Your task to perform on an android device: Search for bose soundlink mini on newegg.com, select the first entry, add it to the cart, then select checkout. Image 0: 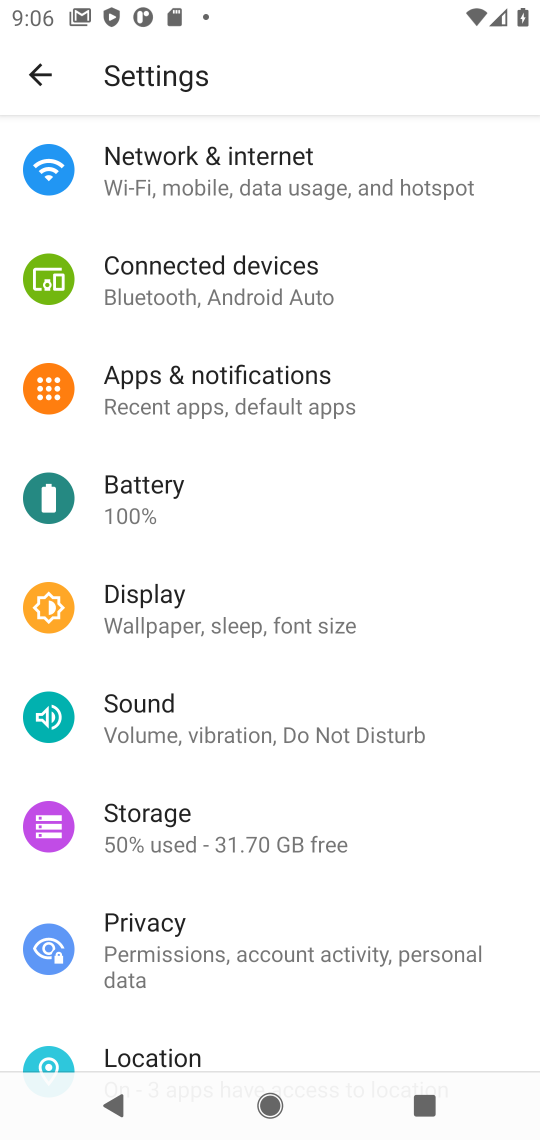
Step 0: press home button
Your task to perform on an android device: Search for bose soundlink mini on newegg.com, select the first entry, add it to the cart, then select checkout. Image 1: 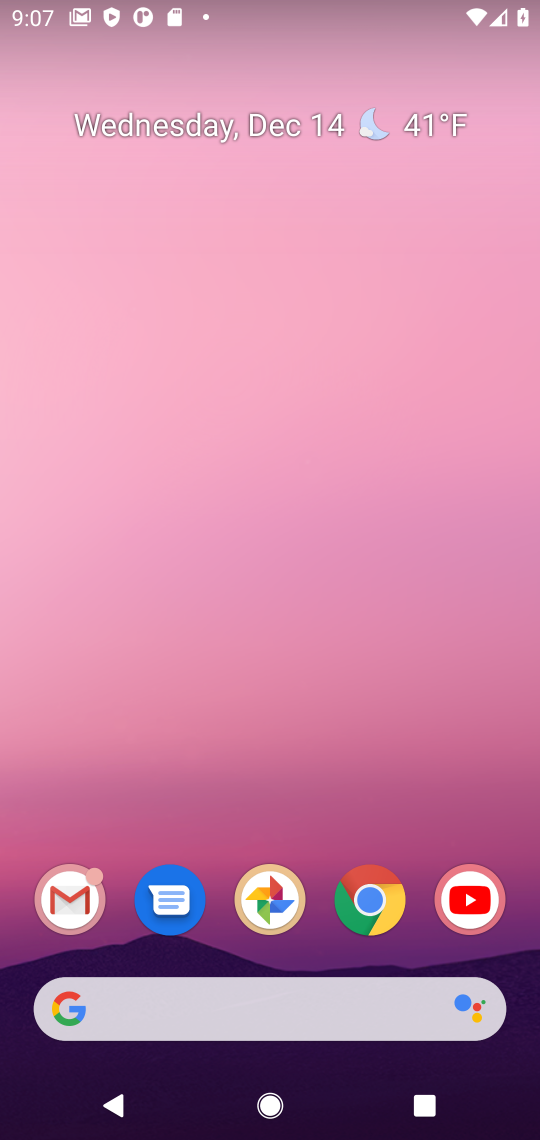
Step 1: click (364, 917)
Your task to perform on an android device: Search for bose soundlink mini on newegg.com, select the first entry, add it to the cart, then select checkout. Image 2: 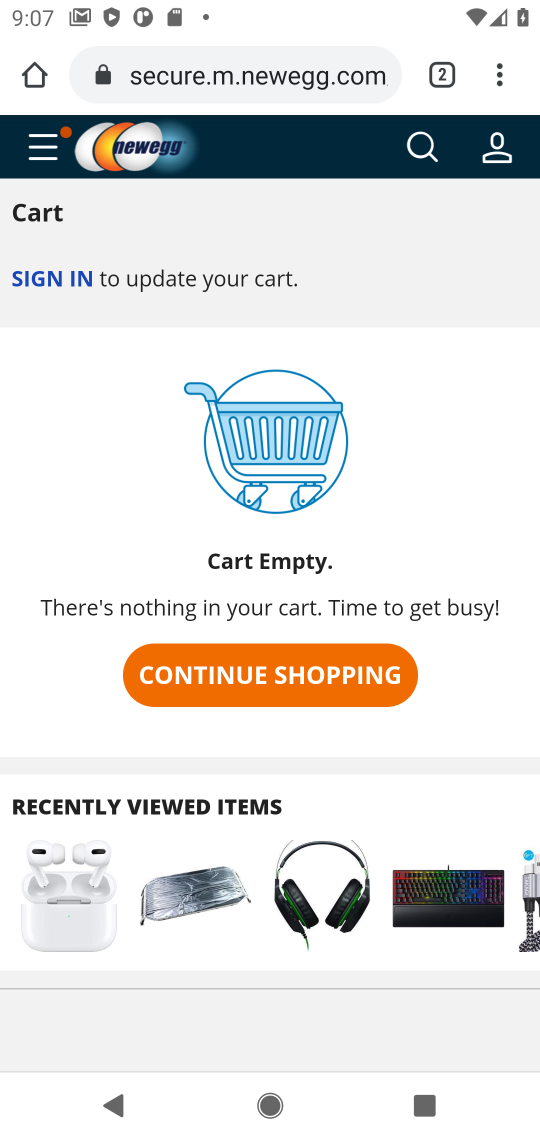
Step 2: click (409, 159)
Your task to perform on an android device: Search for bose soundlink mini on newegg.com, select the first entry, add it to the cart, then select checkout. Image 3: 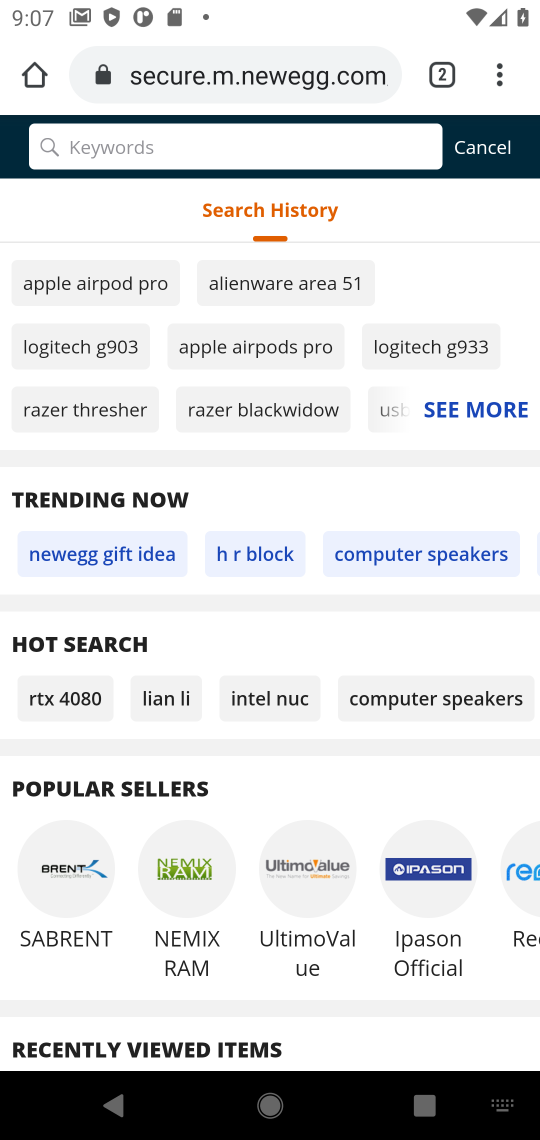
Step 3: type "bose soundlink mini"
Your task to perform on an android device: Search for bose soundlink mini on newegg.com, select the first entry, add it to the cart, then select checkout. Image 4: 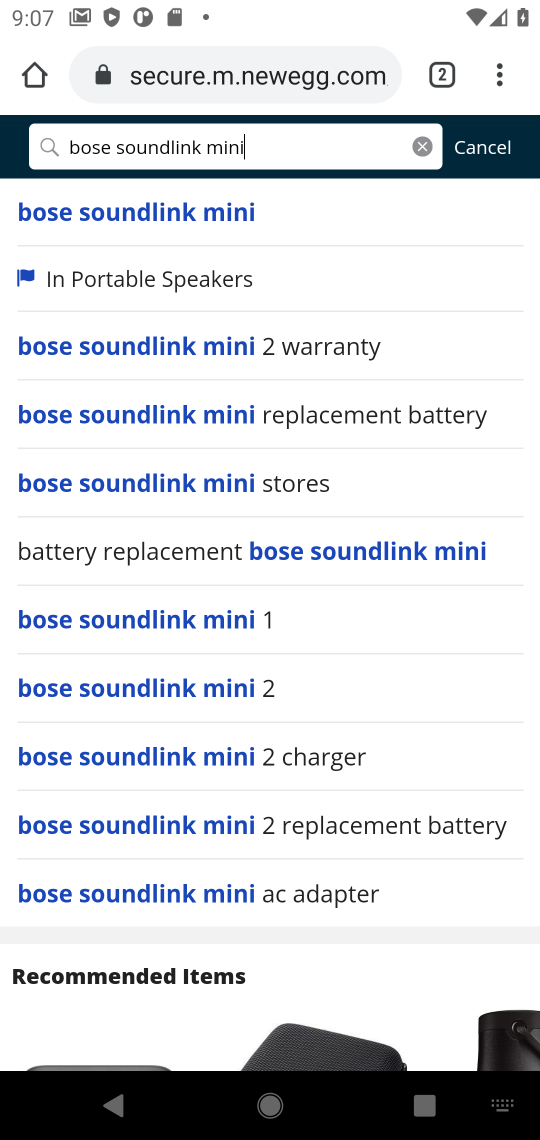
Step 4: click (63, 218)
Your task to perform on an android device: Search for bose soundlink mini on newegg.com, select the first entry, add it to the cart, then select checkout. Image 5: 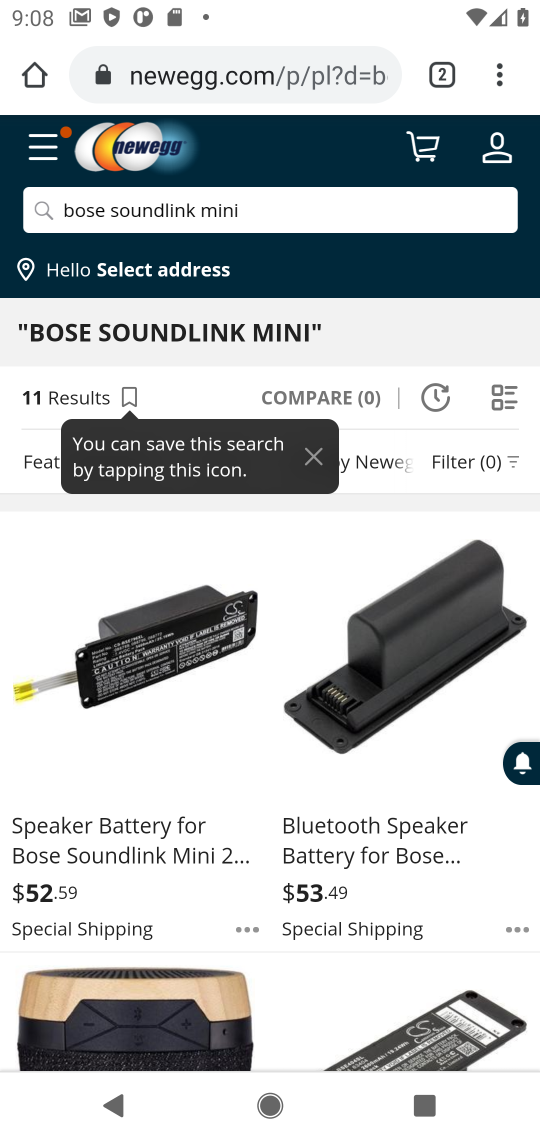
Step 5: click (121, 855)
Your task to perform on an android device: Search for bose soundlink mini on newegg.com, select the first entry, add it to the cart, then select checkout. Image 6: 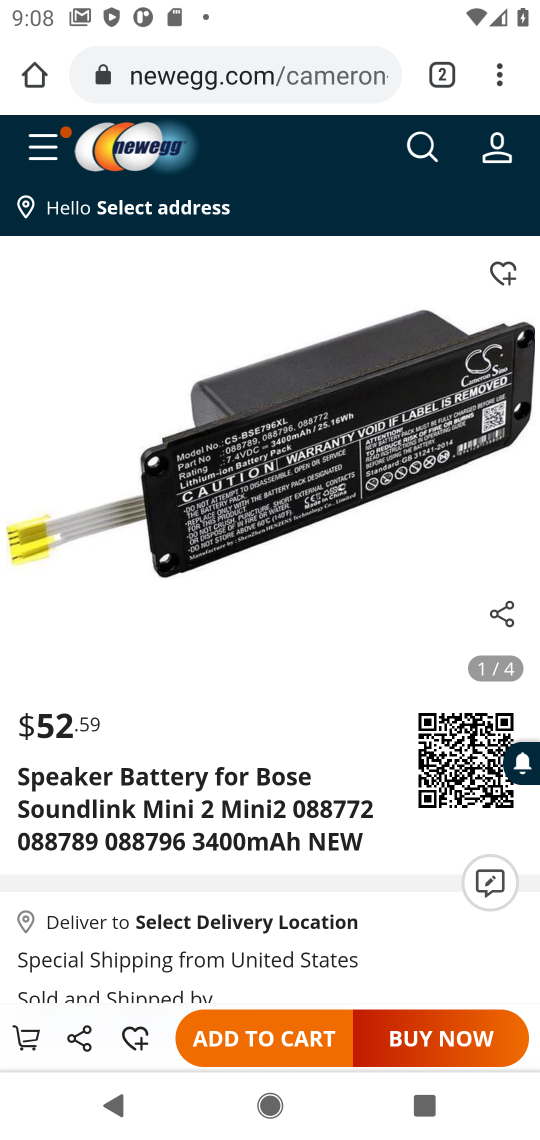
Step 6: click (243, 1032)
Your task to perform on an android device: Search for bose soundlink mini on newegg.com, select the first entry, add it to the cart, then select checkout. Image 7: 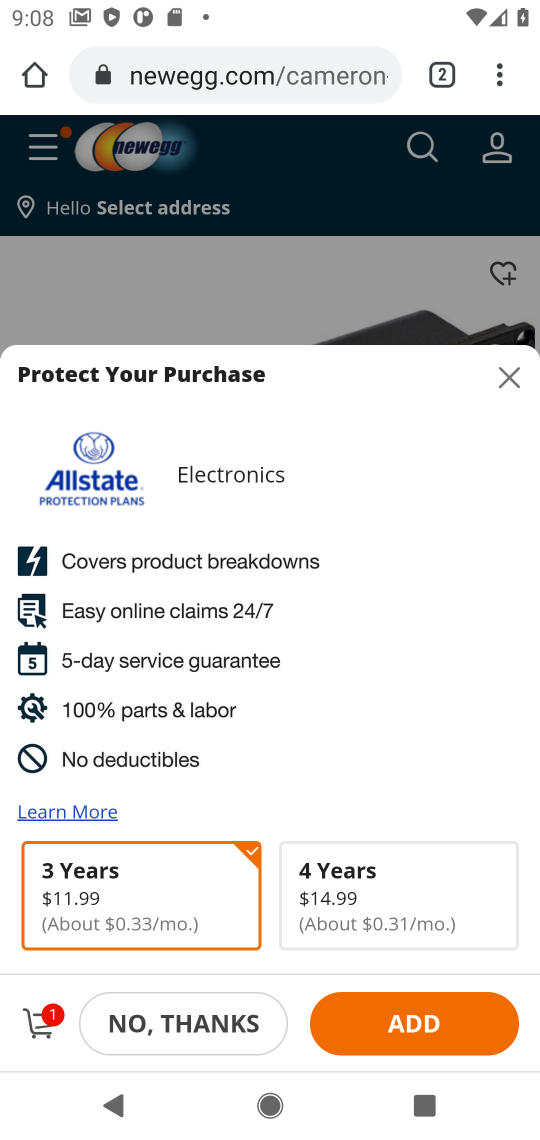
Step 7: click (42, 1028)
Your task to perform on an android device: Search for bose soundlink mini on newegg.com, select the first entry, add it to the cart, then select checkout. Image 8: 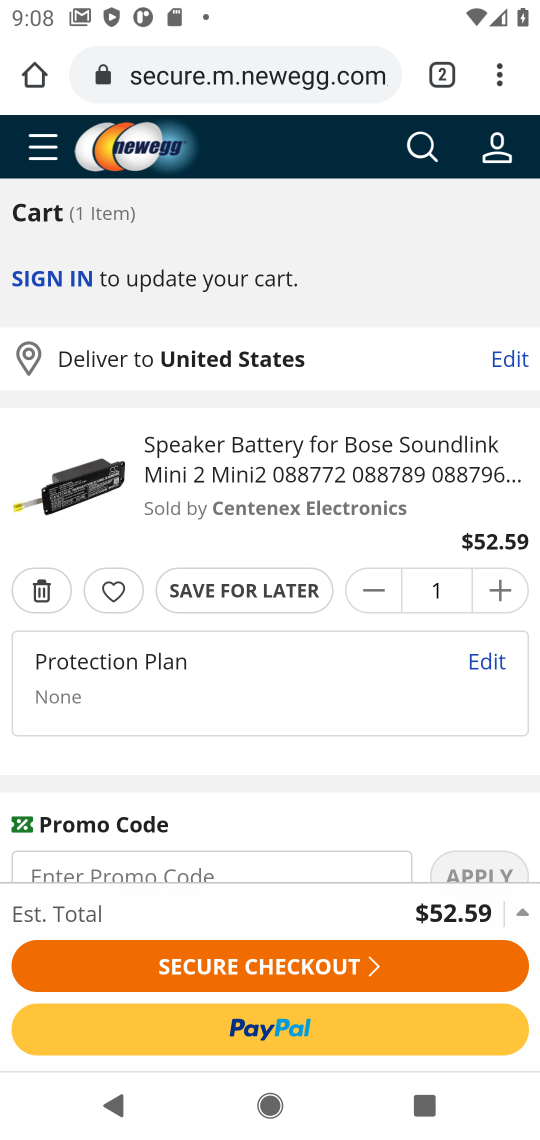
Step 8: click (84, 1019)
Your task to perform on an android device: Search for bose soundlink mini on newegg.com, select the first entry, add it to the cart, then select checkout. Image 9: 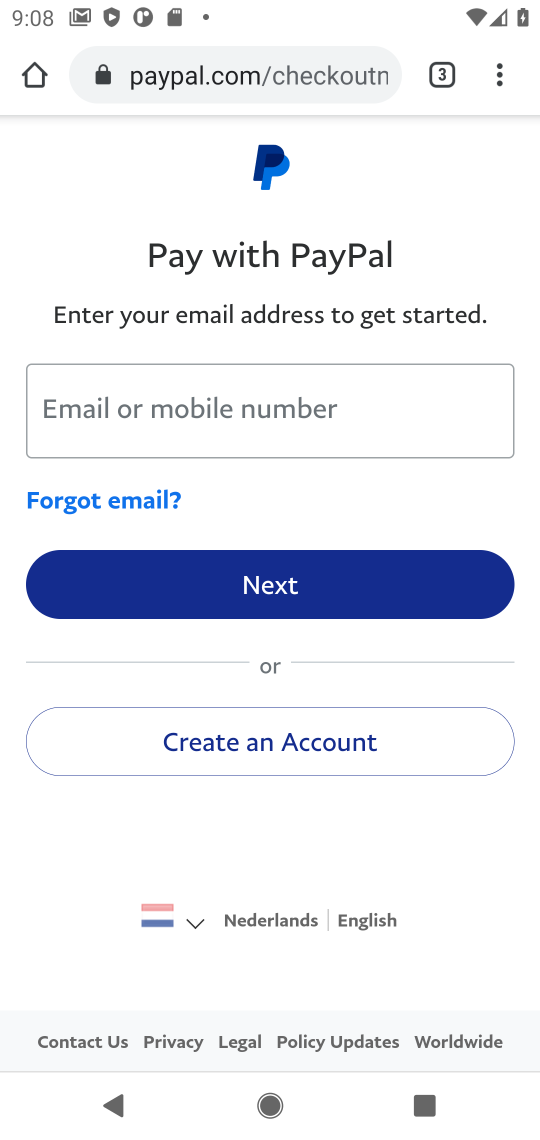
Step 9: task complete